Your task to perform on an android device: turn on the 24-hour format for clock Image 0: 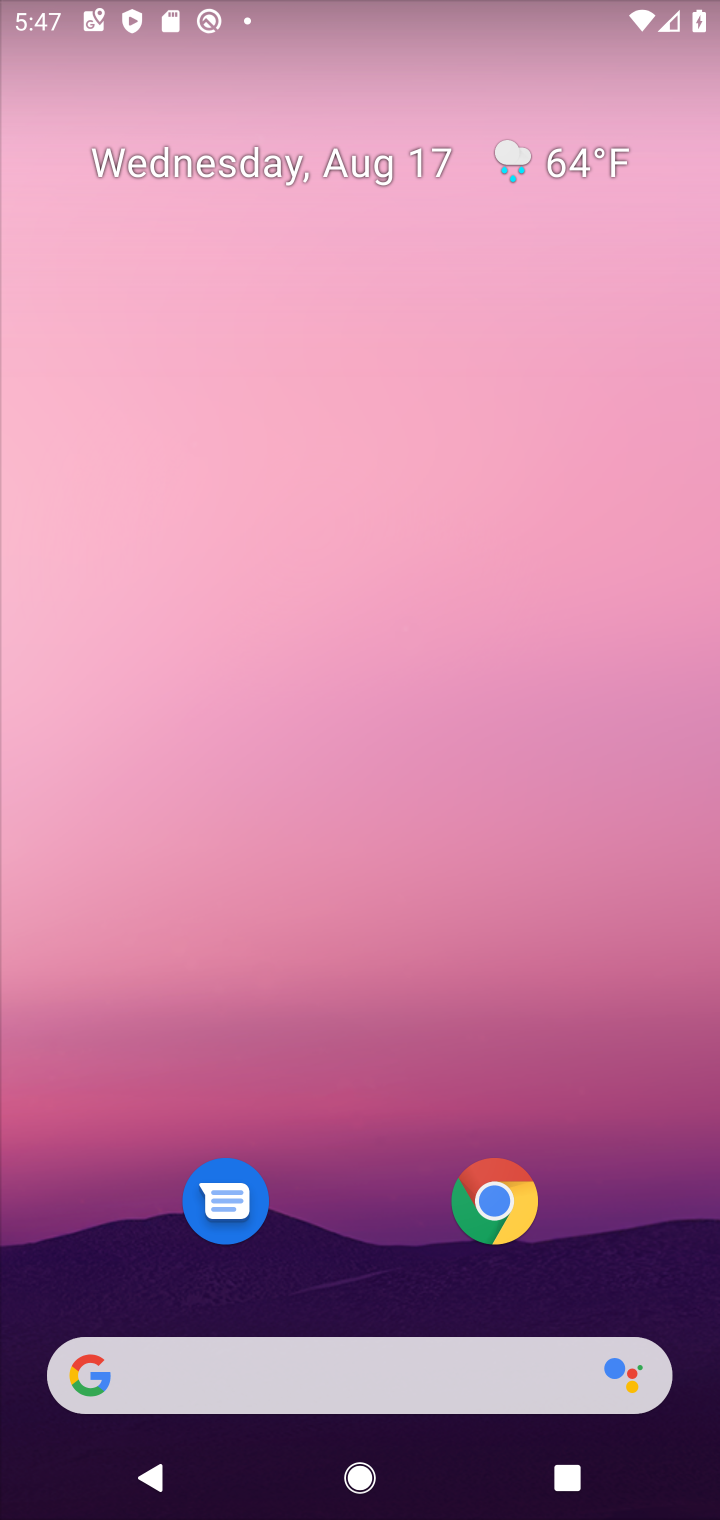
Step 0: press home button
Your task to perform on an android device: turn on the 24-hour format for clock Image 1: 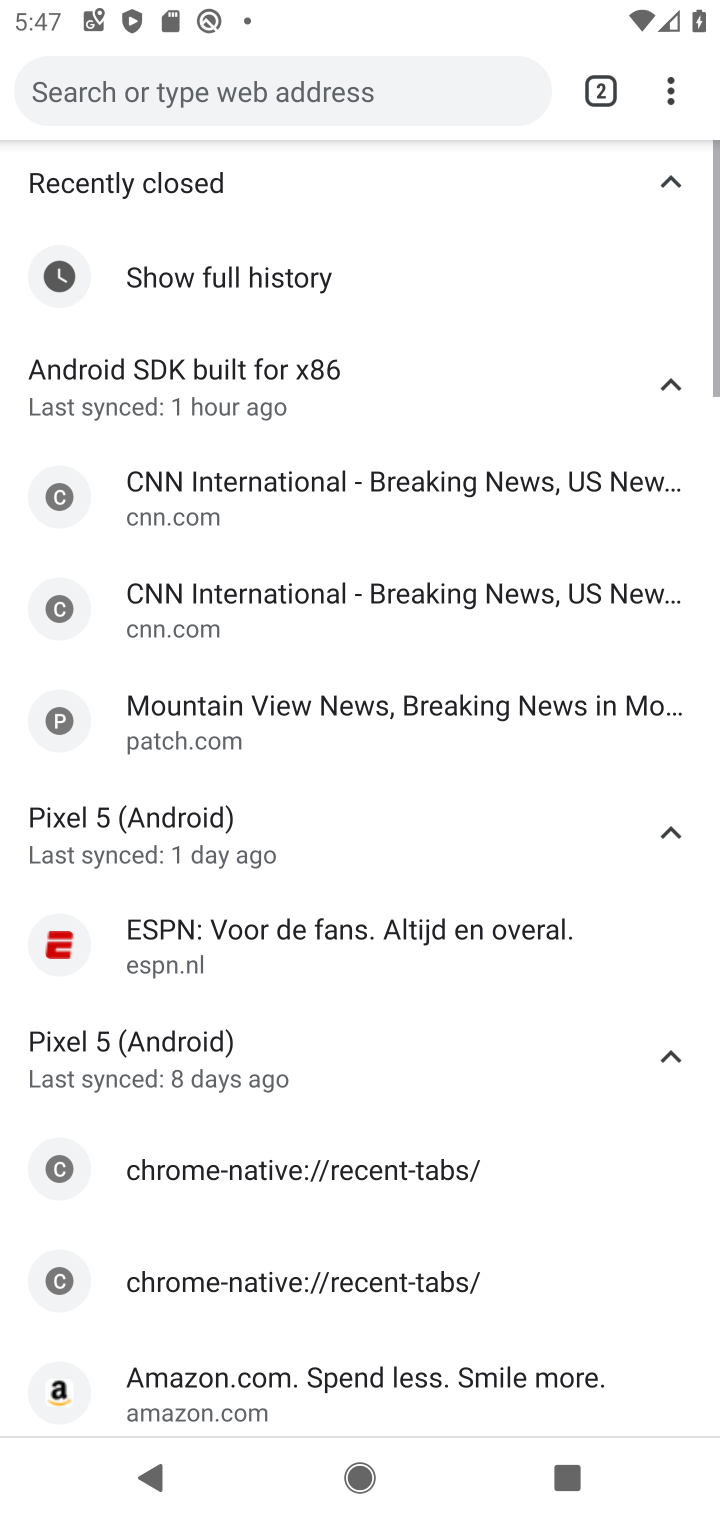
Step 1: click (270, 82)
Your task to perform on an android device: turn on the 24-hour format for clock Image 2: 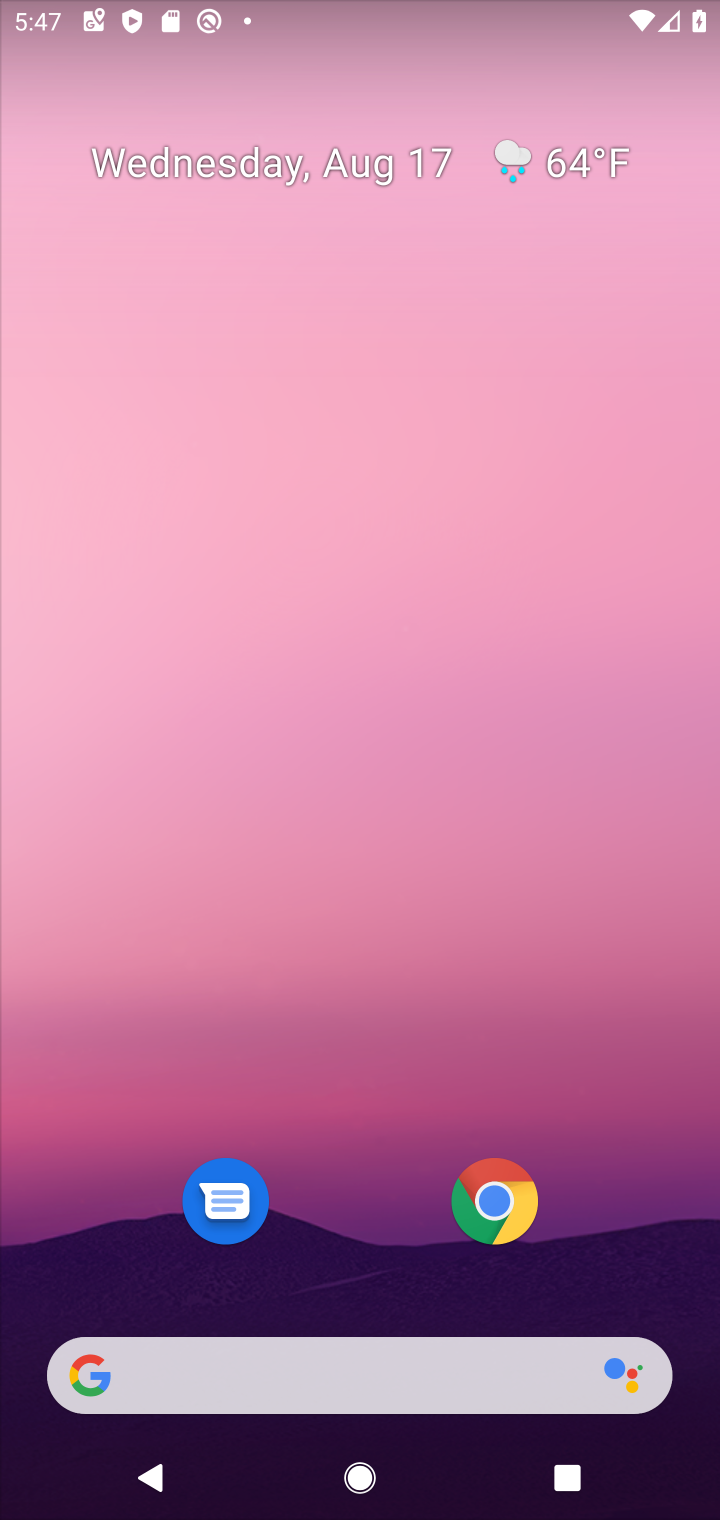
Step 2: drag from (292, 308) to (297, 132)
Your task to perform on an android device: turn on the 24-hour format for clock Image 3: 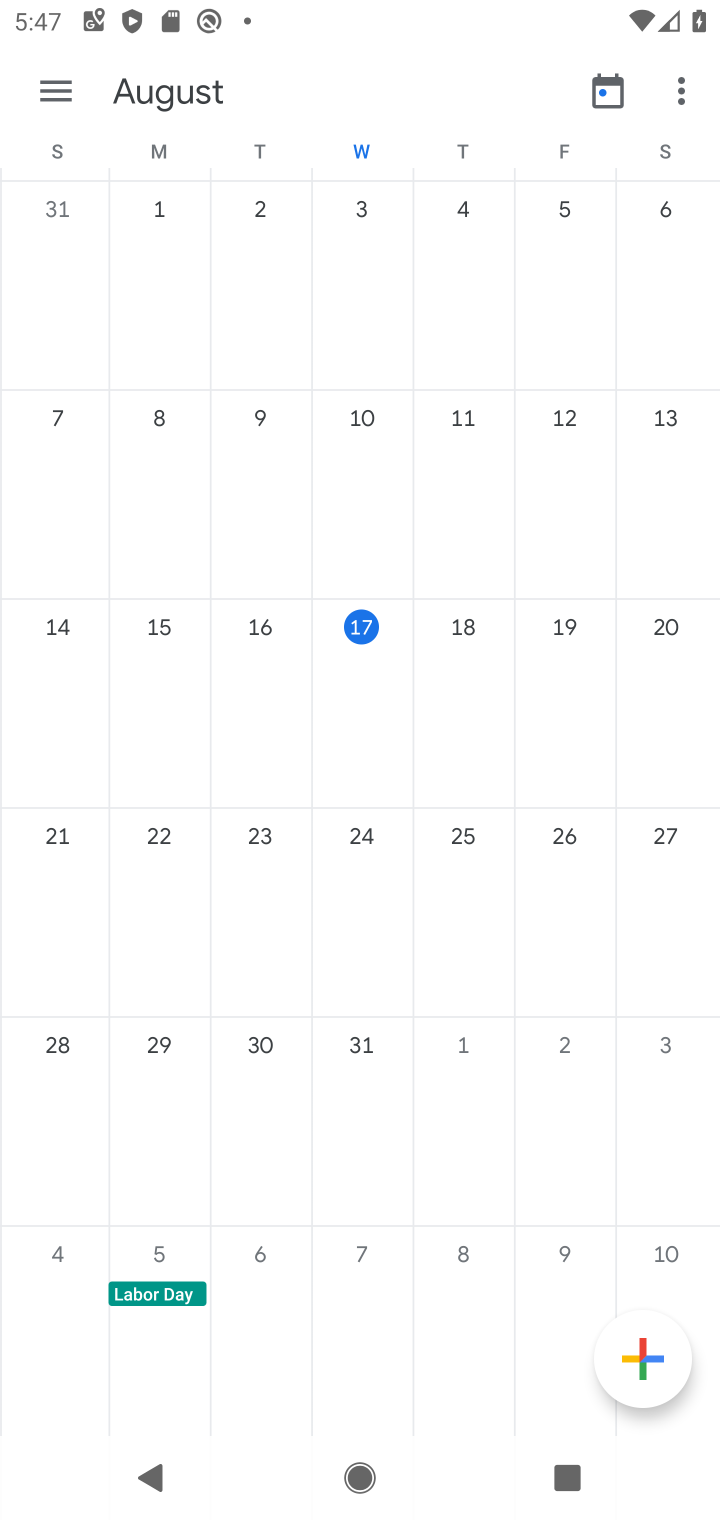
Step 3: press home button
Your task to perform on an android device: turn on the 24-hour format for clock Image 4: 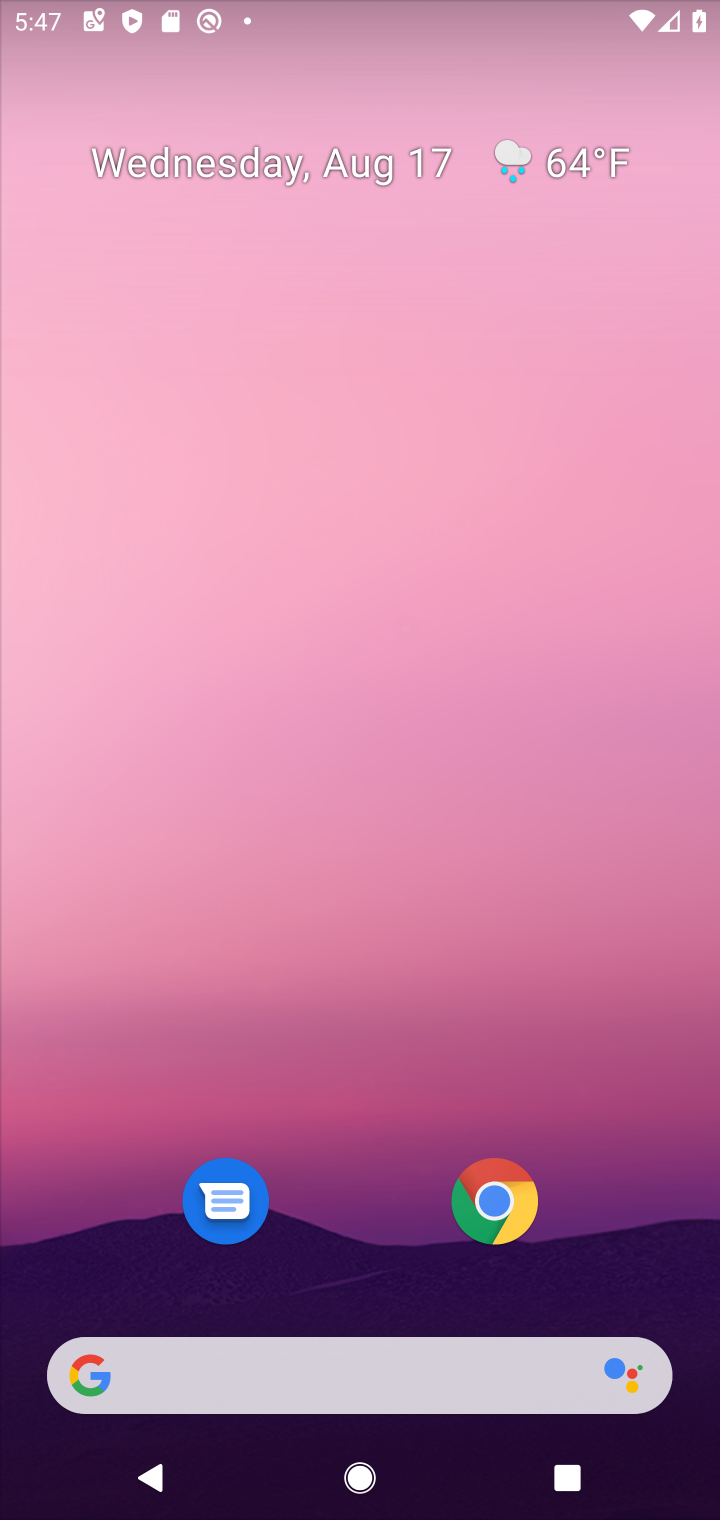
Step 4: drag from (330, 885) to (311, 108)
Your task to perform on an android device: turn on the 24-hour format for clock Image 5: 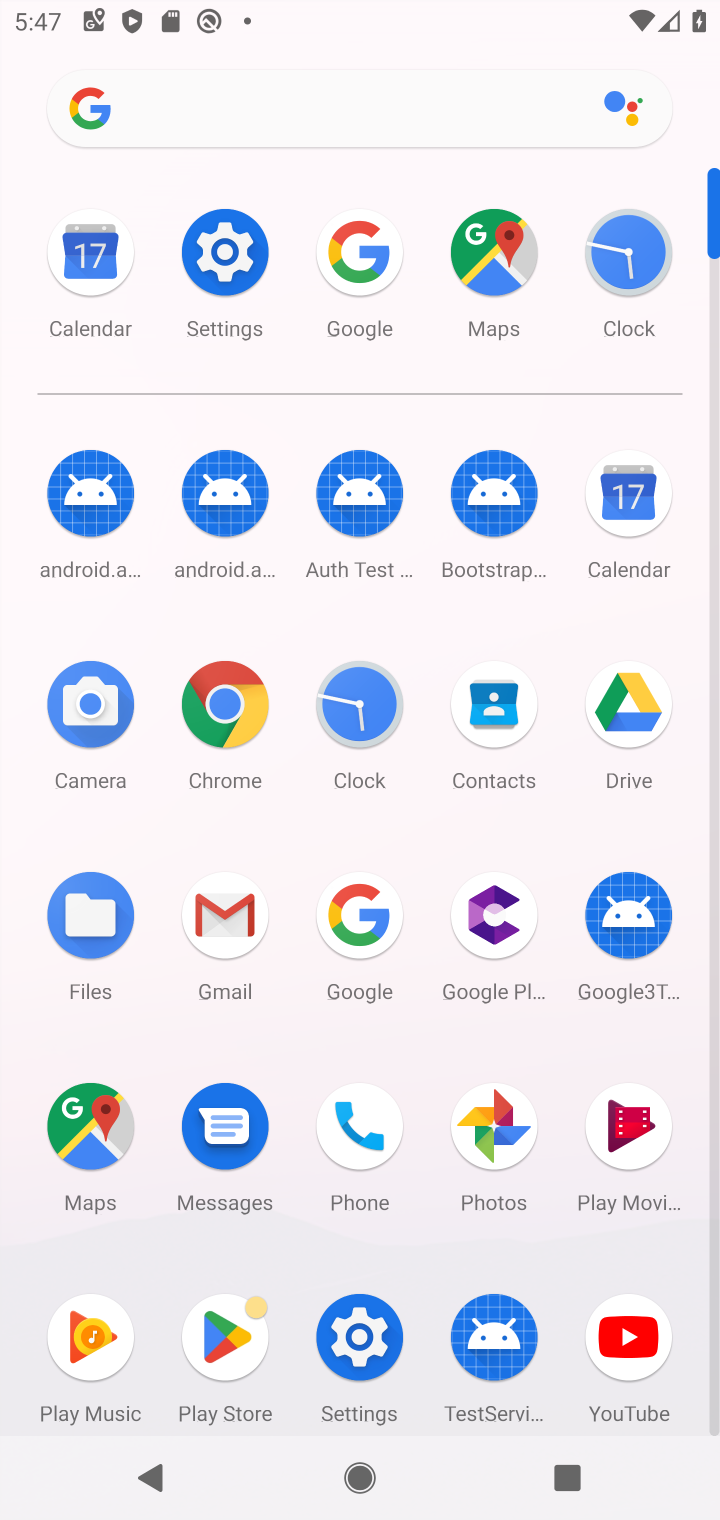
Step 5: click (348, 719)
Your task to perform on an android device: turn on the 24-hour format for clock Image 6: 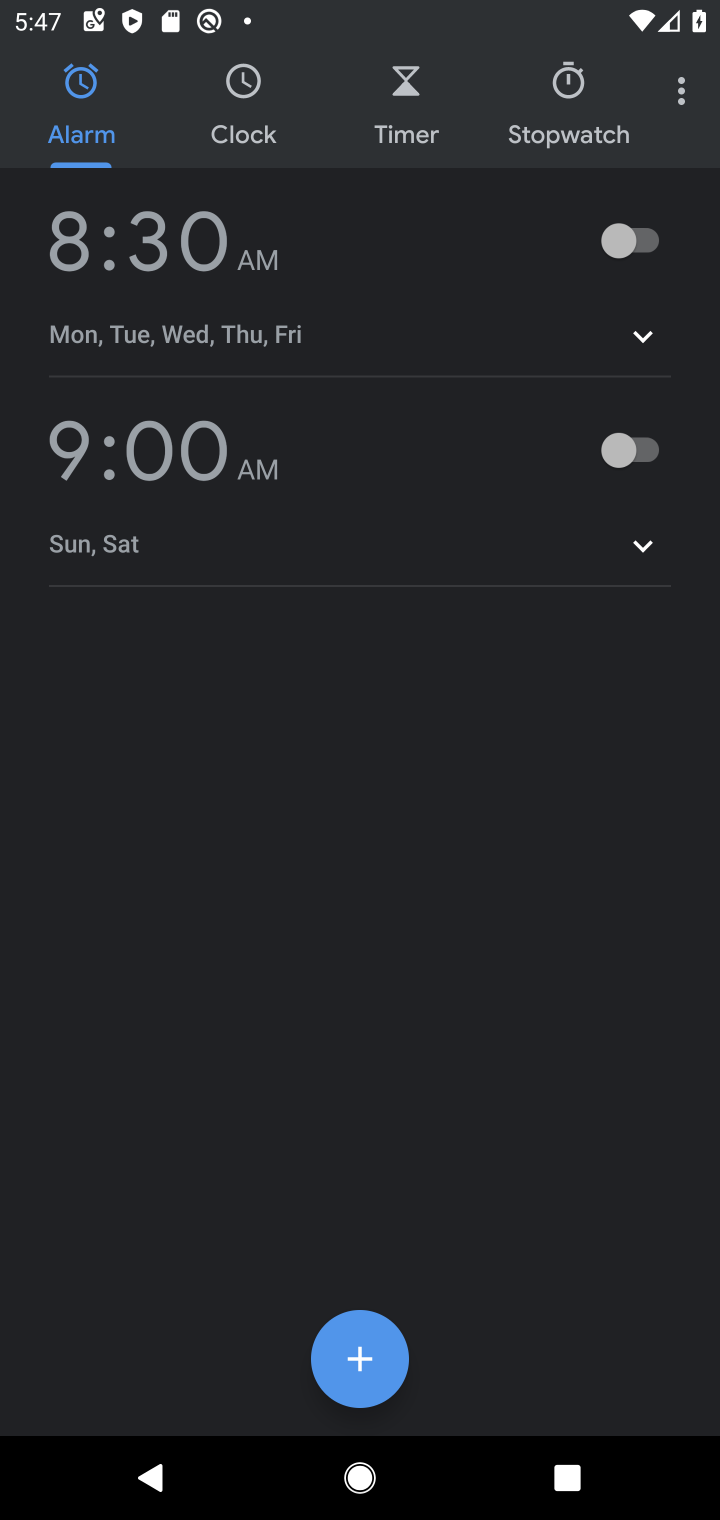
Step 6: click (689, 96)
Your task to perform on an android device: turn on the 24-hour format for clock Image 7: 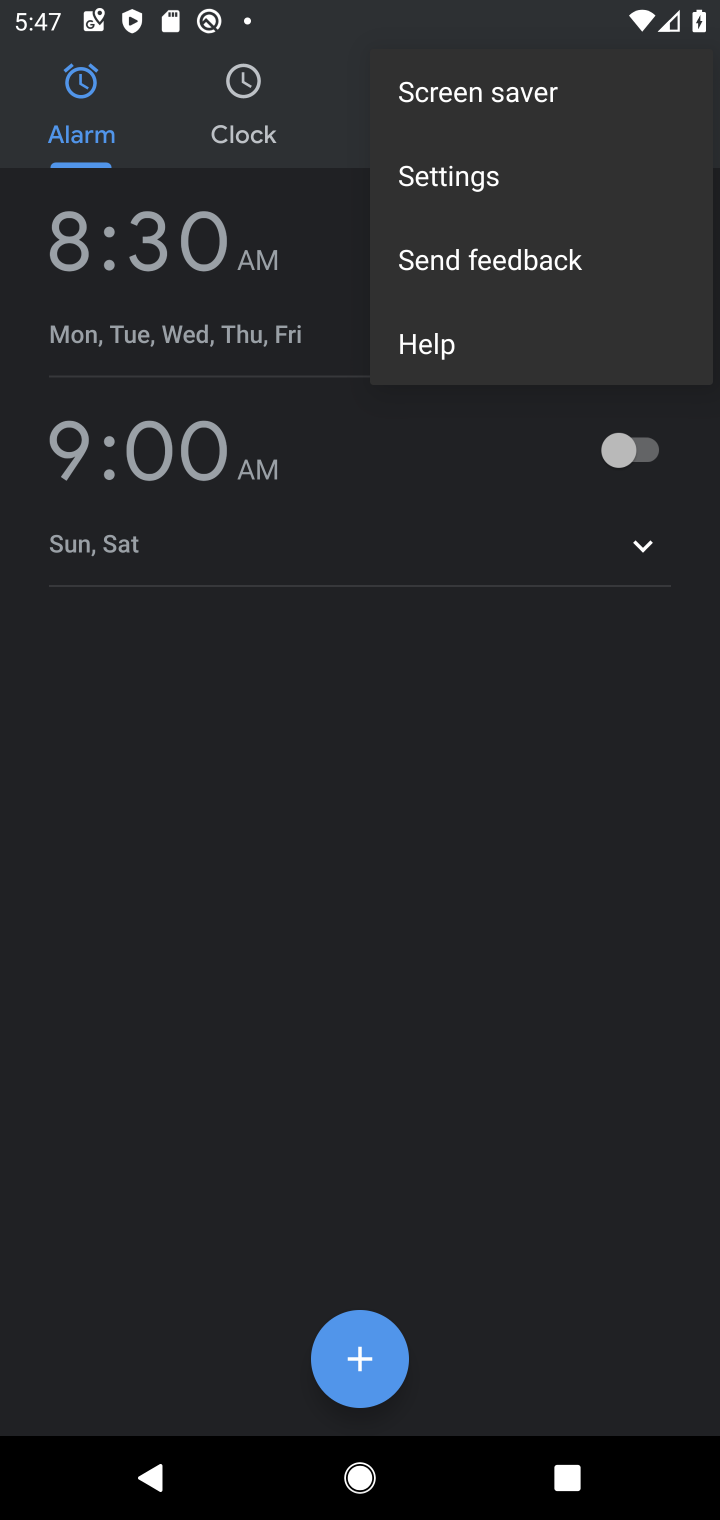
Step 7: click (433, 185)
Your task to perform on an android device: turn on the 24-hour format for clock Image 8: 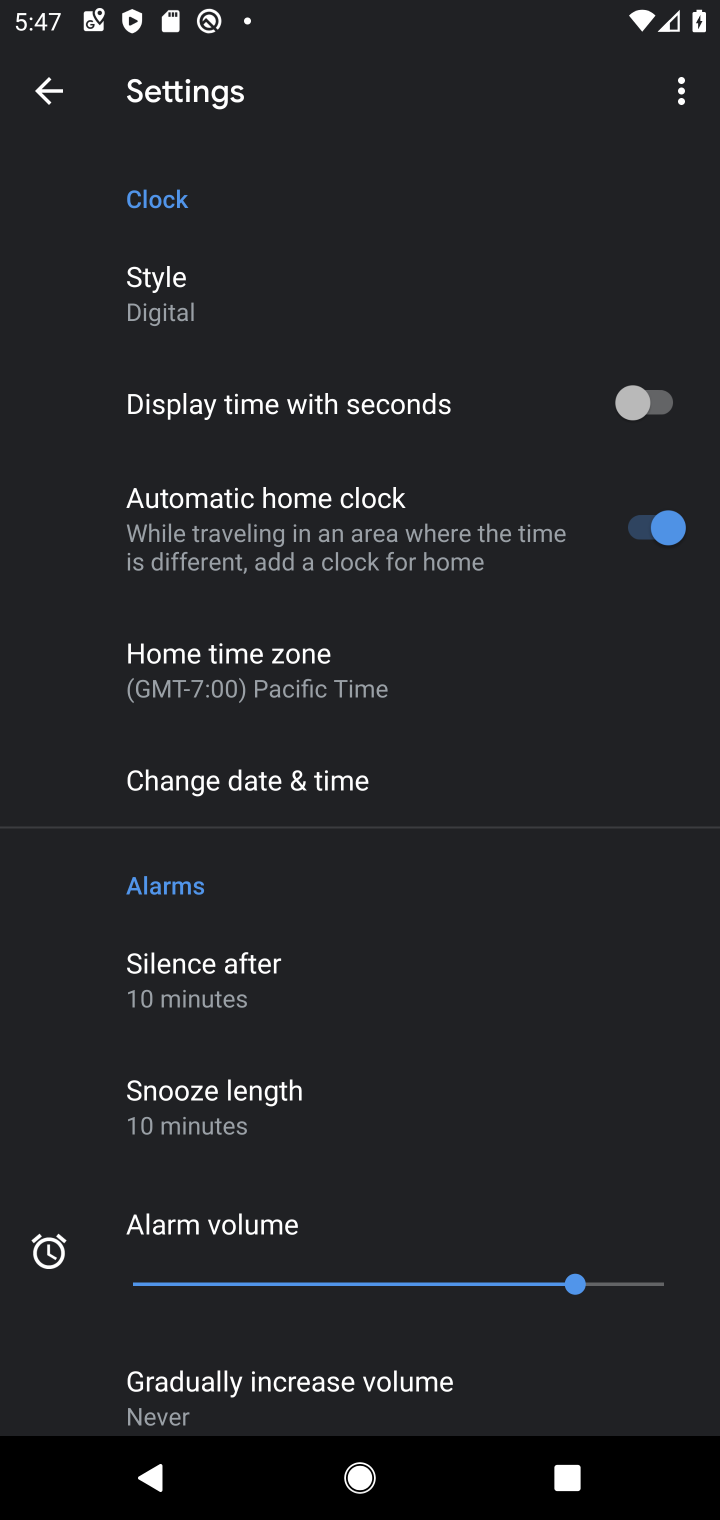
Step 8: click (280, 781)
Your task to perform on an android device: turn on the 24-hour format for clock Image 9: 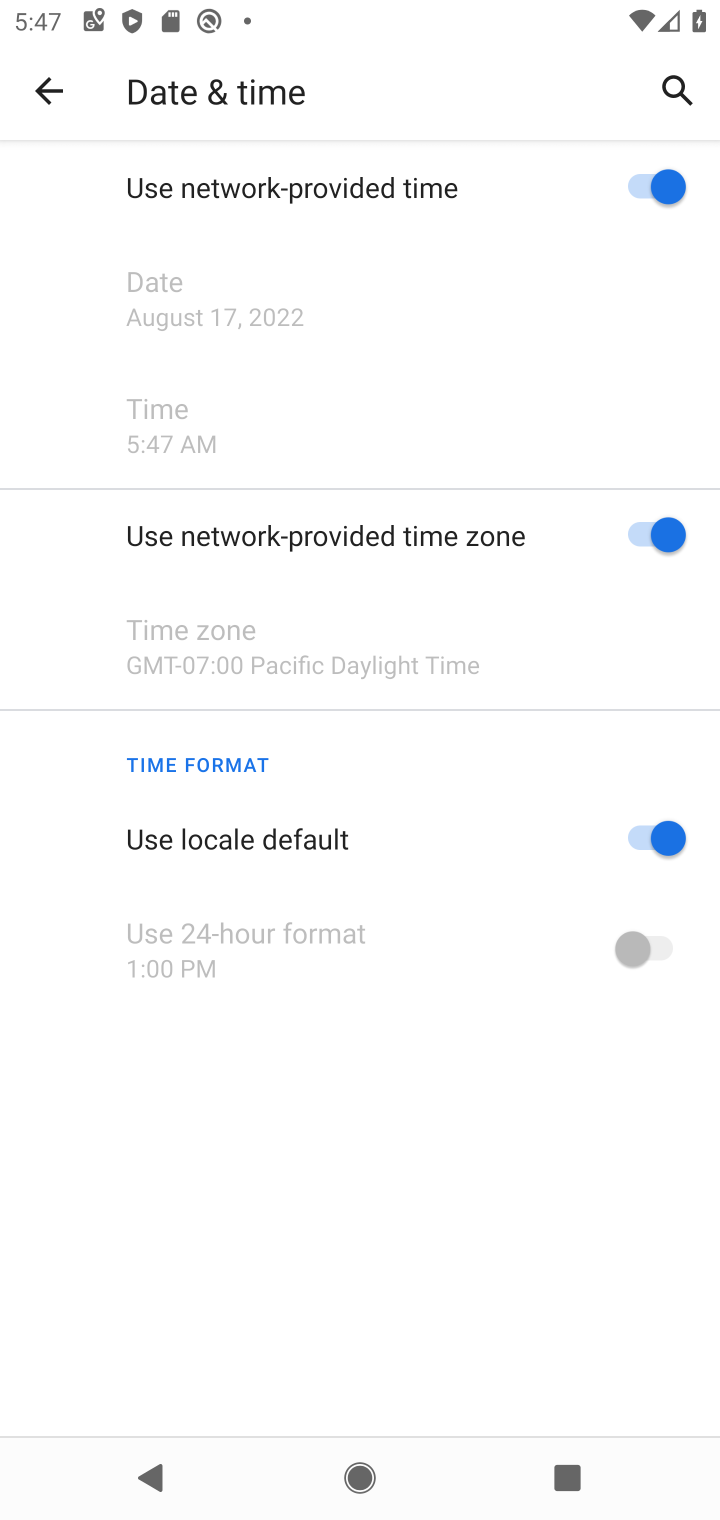
Step 9: click (662, 845)
Your task to perform on an android device: turn on the 24-hour format for clock Image 10: 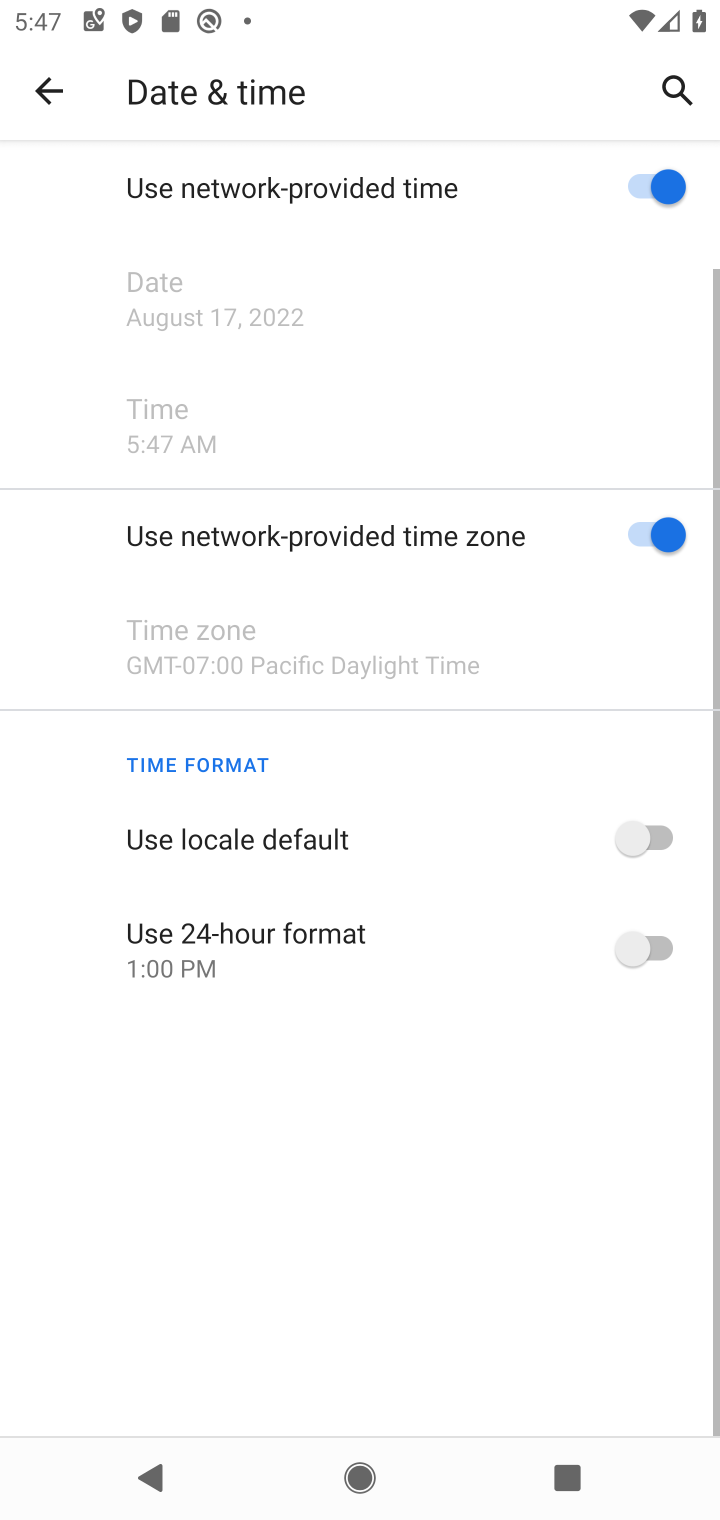
Step 10: click (641, 943)
Your task to perform on an android device: turn on the 24-hour format for clock Image 11: 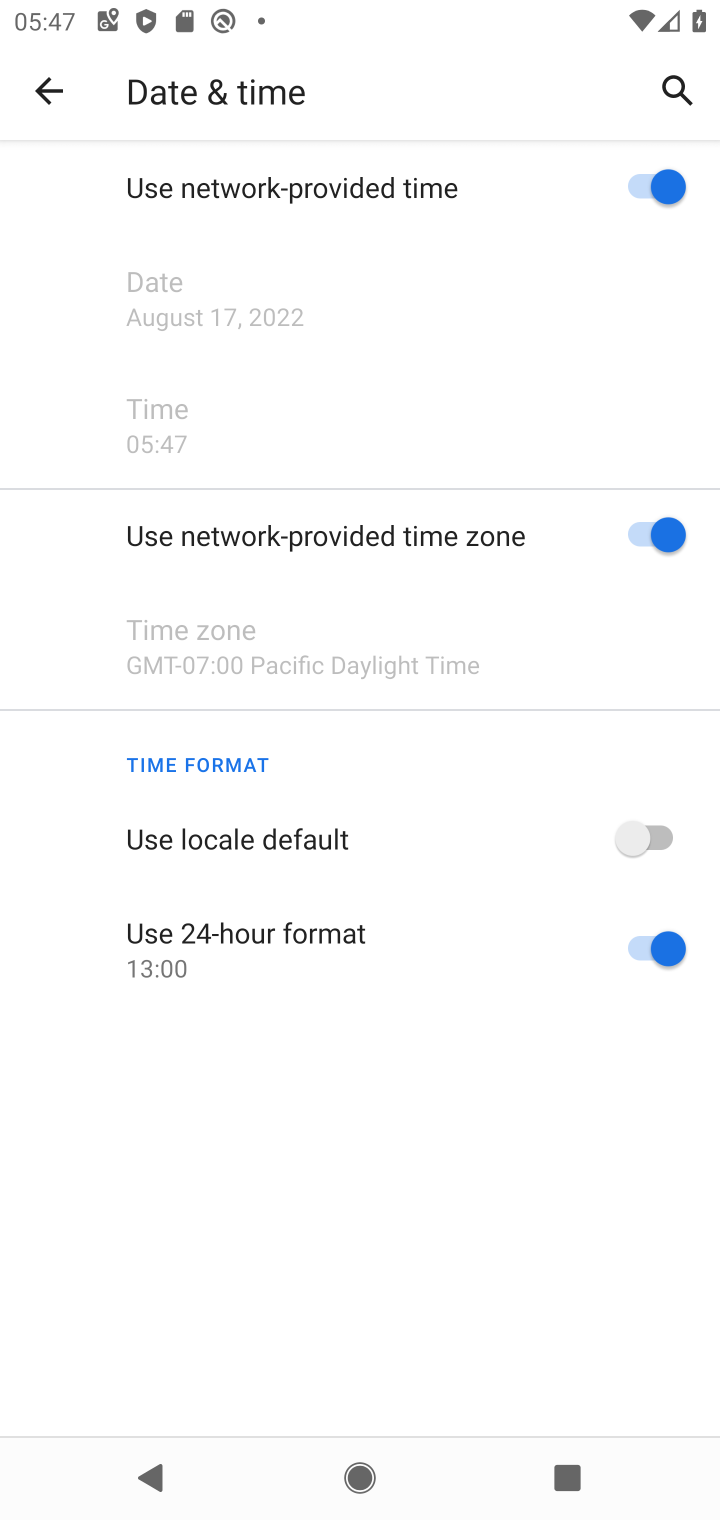
Step 11: task complete